Your task to perform on an android device: Open Chrome and go to settings Image 0: 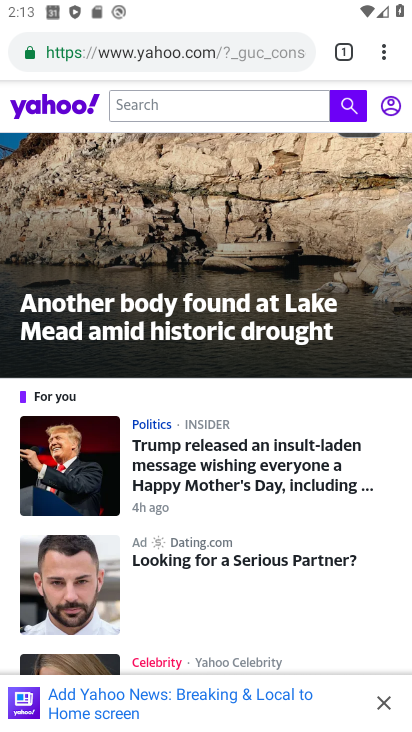
Step 0: click (380, 71)
Your task to perform on an android device: Open Chrome and go to settings Image 1: 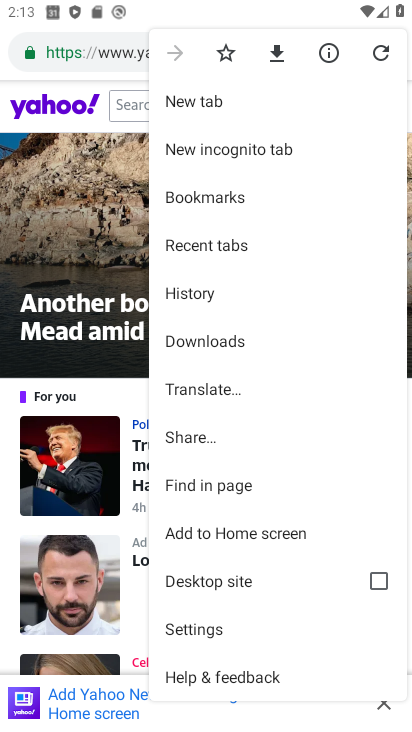
Step 1: click (291, 629)
Your task to perform on an android device: Open Chrome and go to settings Image 2: 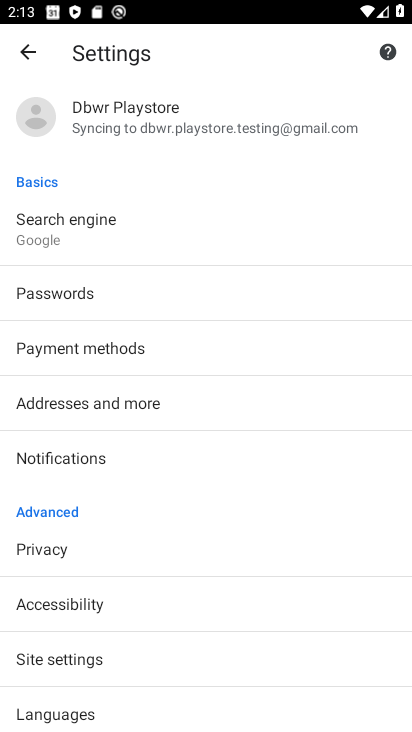
Step 2: task complete